Your task to perform on an android device: Search for Italian restaurants on Maps Image 0: 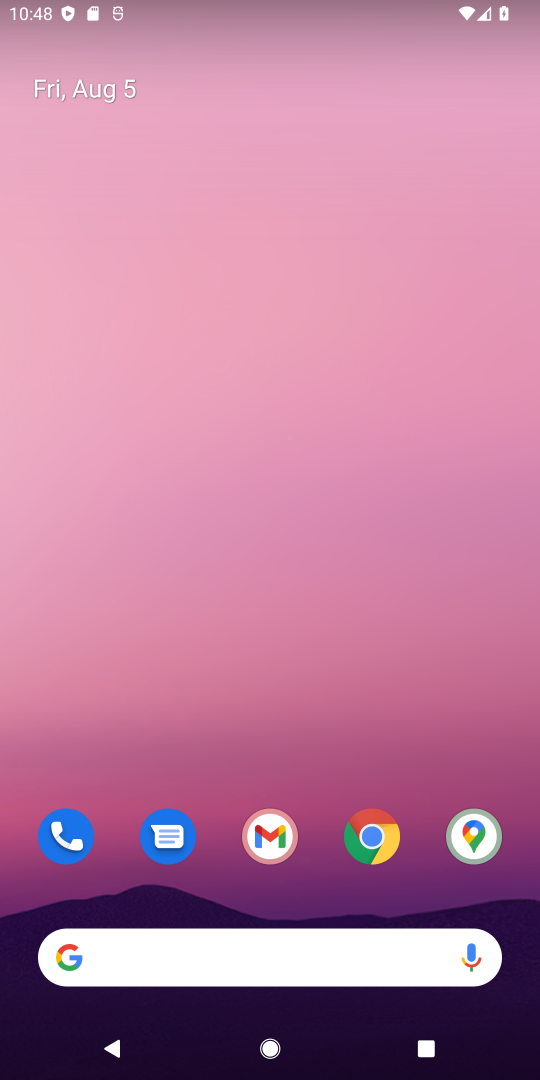
Step 0: drag from (296, 768) to (332, 138)
Your task to perform on an android device: Search for Italian restaurants on Maps Image 1: 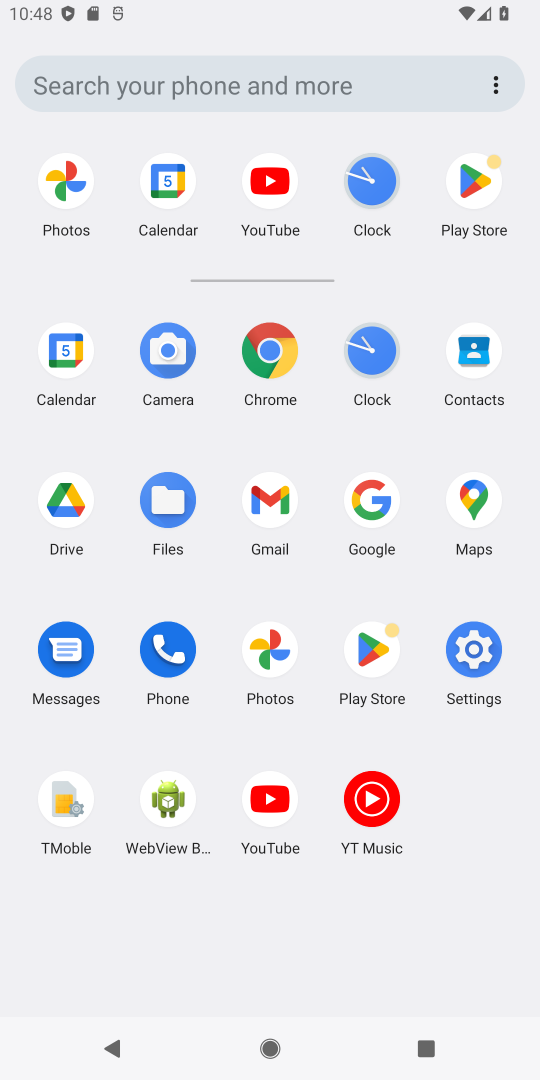
Step 1: click (477, 512)
Your task to perform on an android device: Search for Italian restaurants on Maps Image 2: 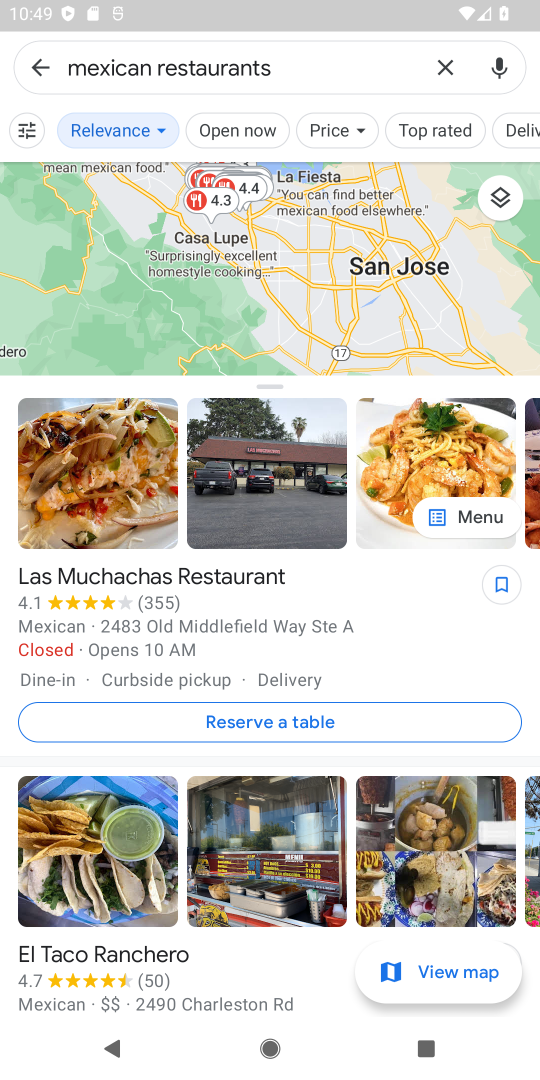
Step 2: click (443, 60)
Your task to perform on an android device: Search for Italian restaurants on Maps Image 3: 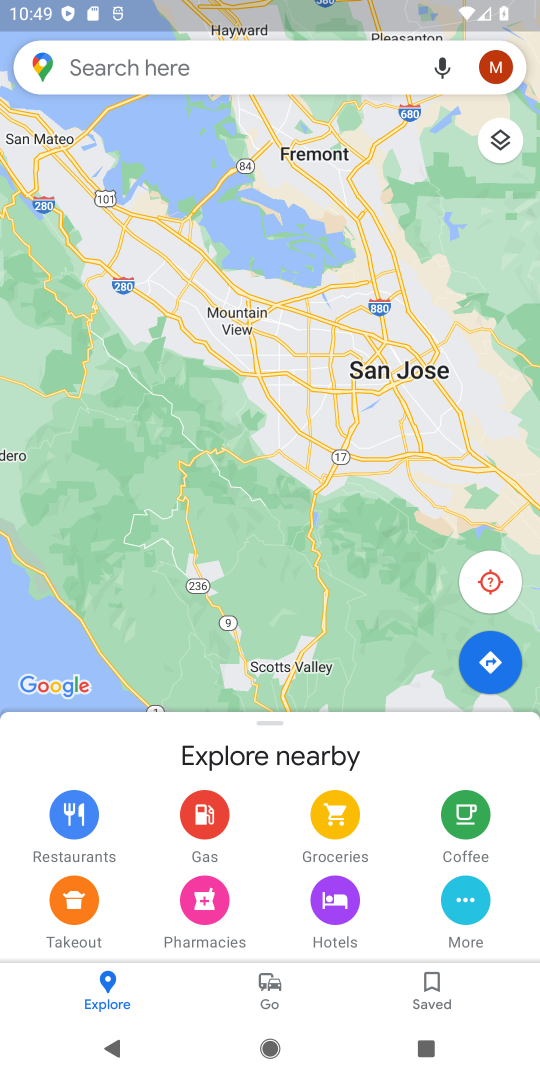
Step 3: click (368, 64)
Your task to perform on an android device: Search for Italian restaurants on Maps Image 4: 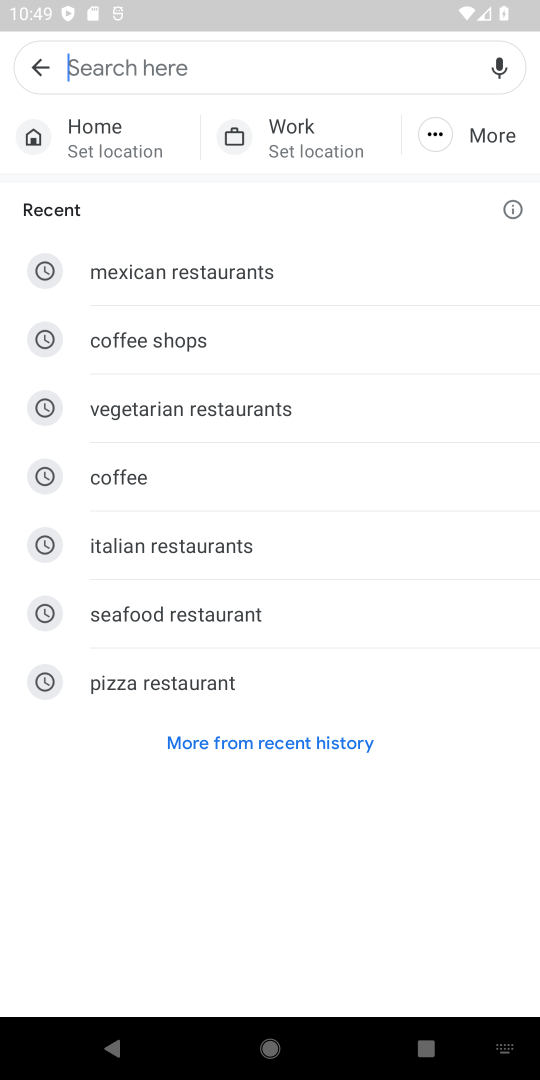
Step 4: click (207, 541)
Your task to perform on an android device: Search for Italian restaurants on Maps Image 5: 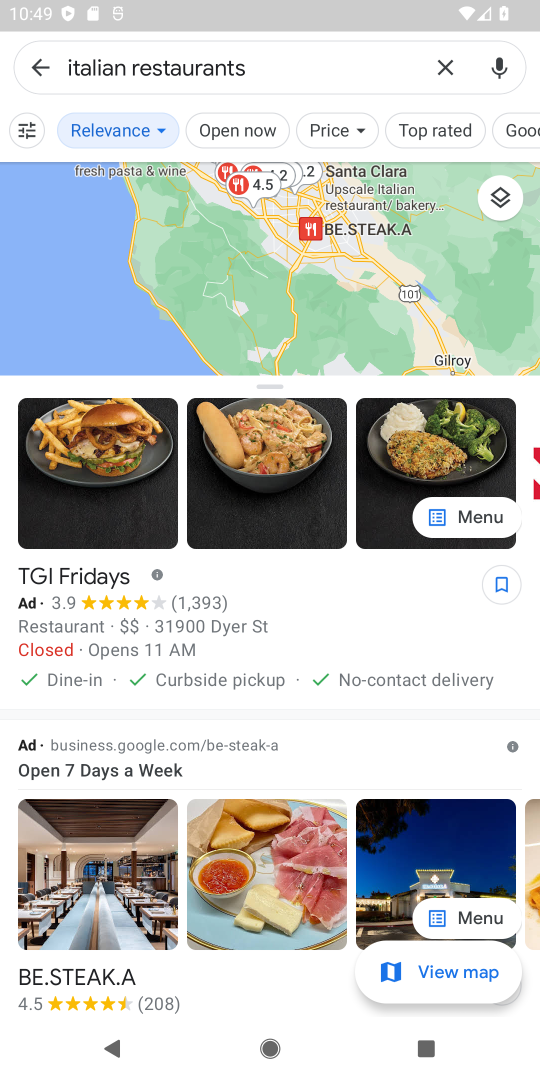
Step 5: task complete